Your task to perform on an android device: Show me recent news Image 0: 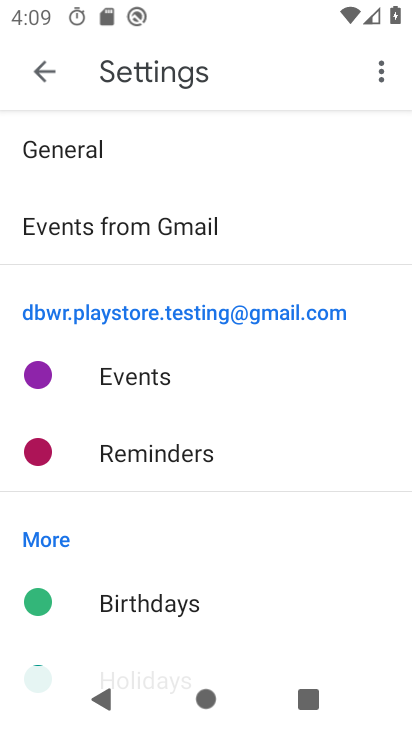
Step 0: press home button
Your task to perform on an android device: Show me recent news Image 1: 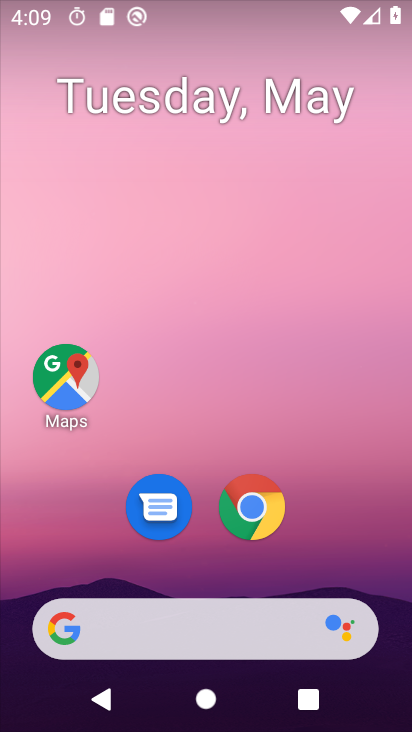
Step 1: click (144, 629)
Your task to perform on an android device: Show me recent news Image 2: 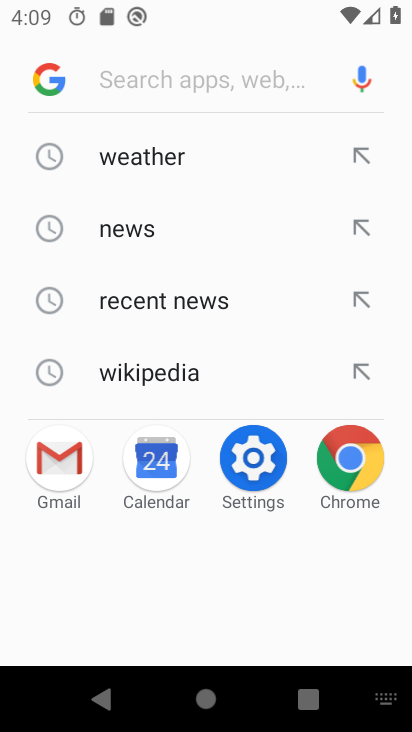
Step 2: type "recent news"
Your task to perform on an android device: Show me recent news Image 3: 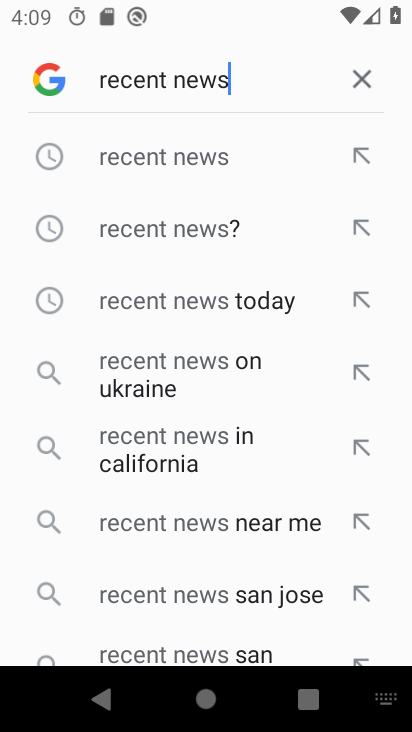
Step 3: click (137, 155)
Your task to perform on an android device: Show me recent news Image 4: 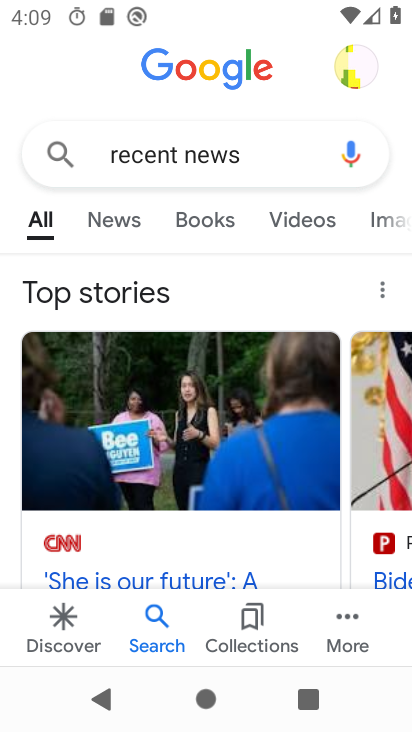
Step 4: click (94, 200)
Your task to perform on an android device: Show me recent news Image 5: 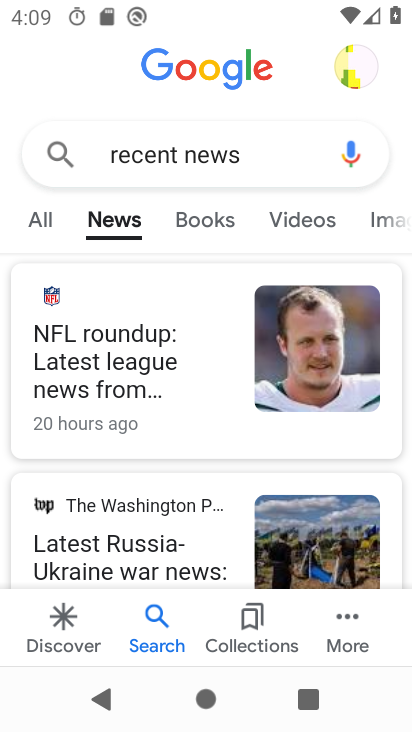
Step 5: task complete